Your task to perform on an android device: open app "Google Duo" Image 0: 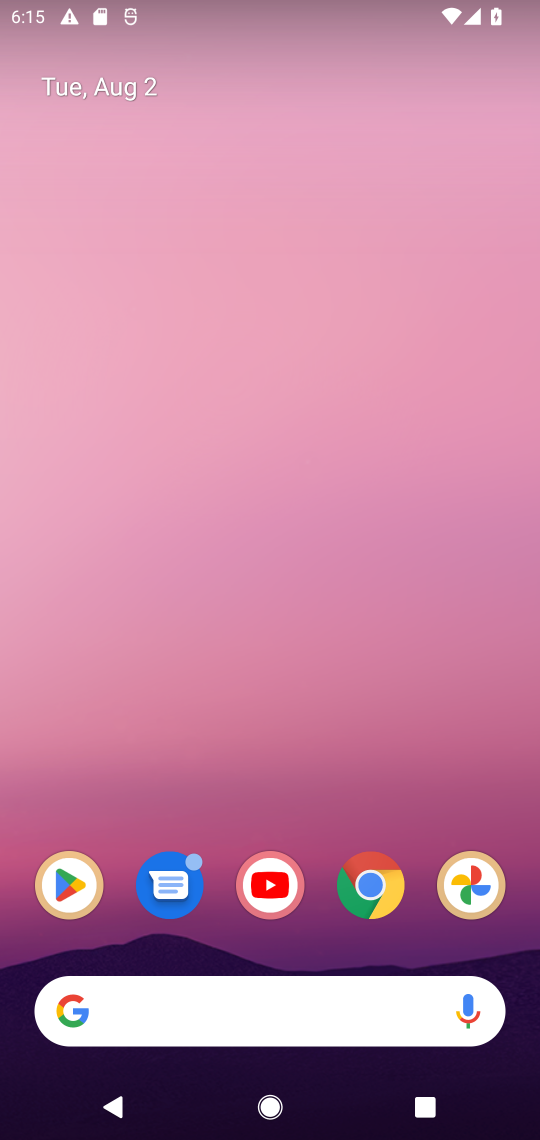
Step 0: press home button
Your task to perform on an android device: open app "Google Duo" Image 1: 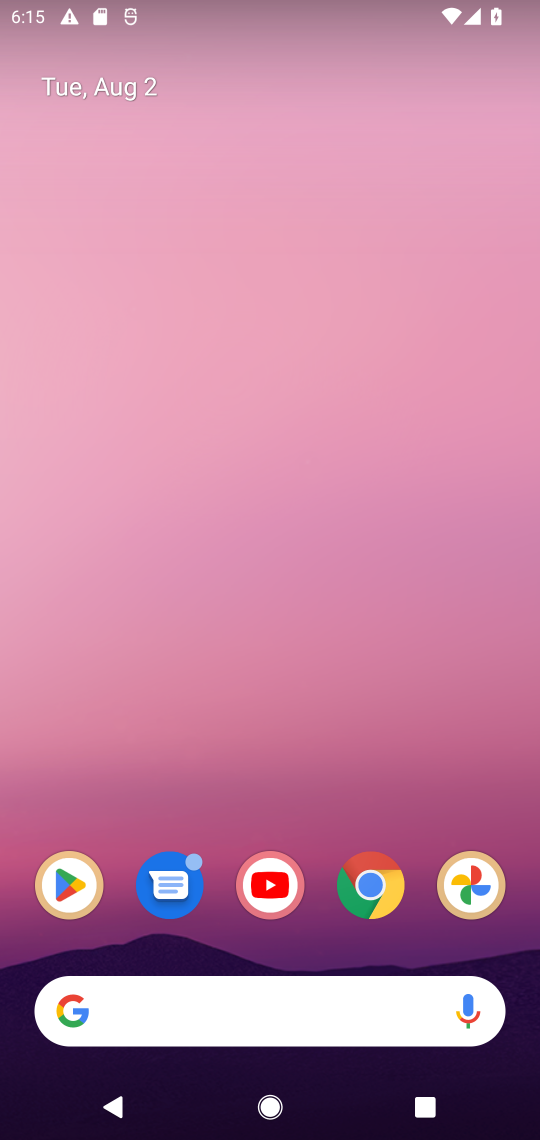
Step 1: drag from (411, 717) to (362, 69)
Your task to perform on an android device: open app "Google Duo" Image 2: 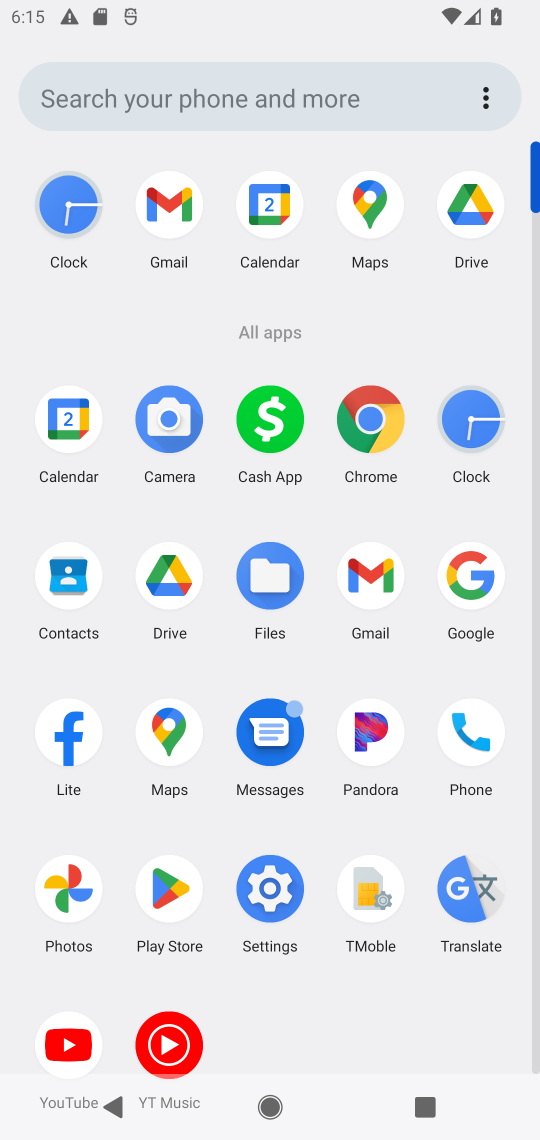
Step 2: click (166, 909)
Your task to perform on an android device: open app "Google Duo" Image 3: 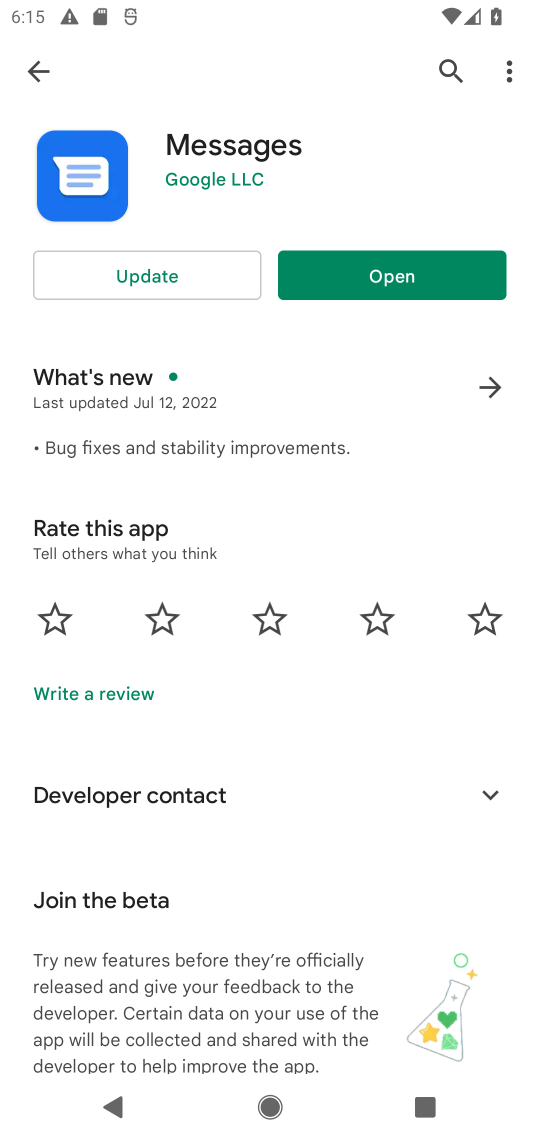
Step 3: click (449, 72)
Your task to perform on an android device: open app "Google Duo" Image 4: 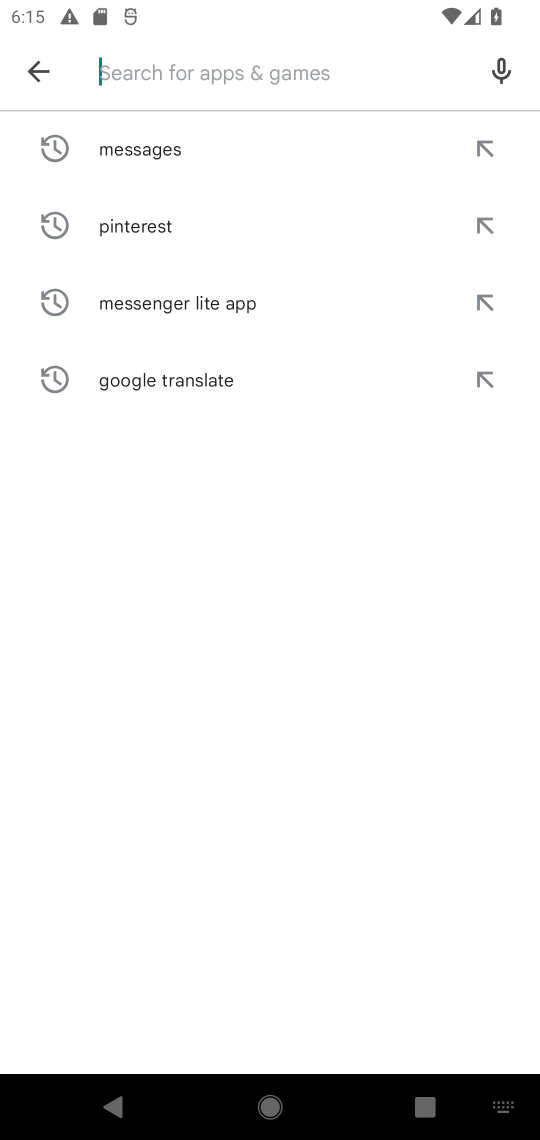
Step 4: type "google duo"
Your task to perform on an android device: open app "Google Duo" Image 5: 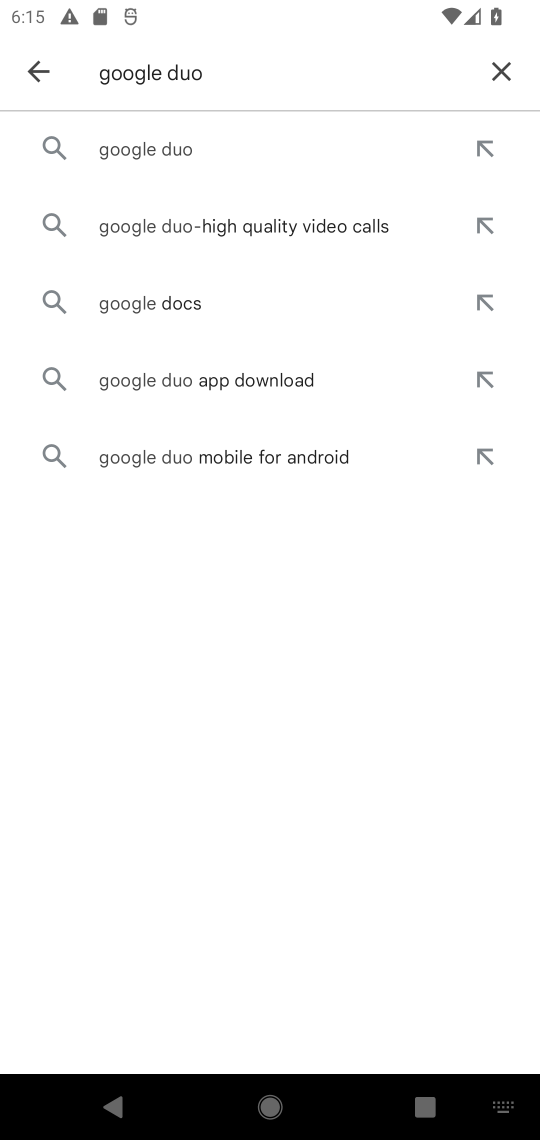
Step 5: click (189, 140)
Your task to perform on an android device: open app "Google Duo" Image 6: 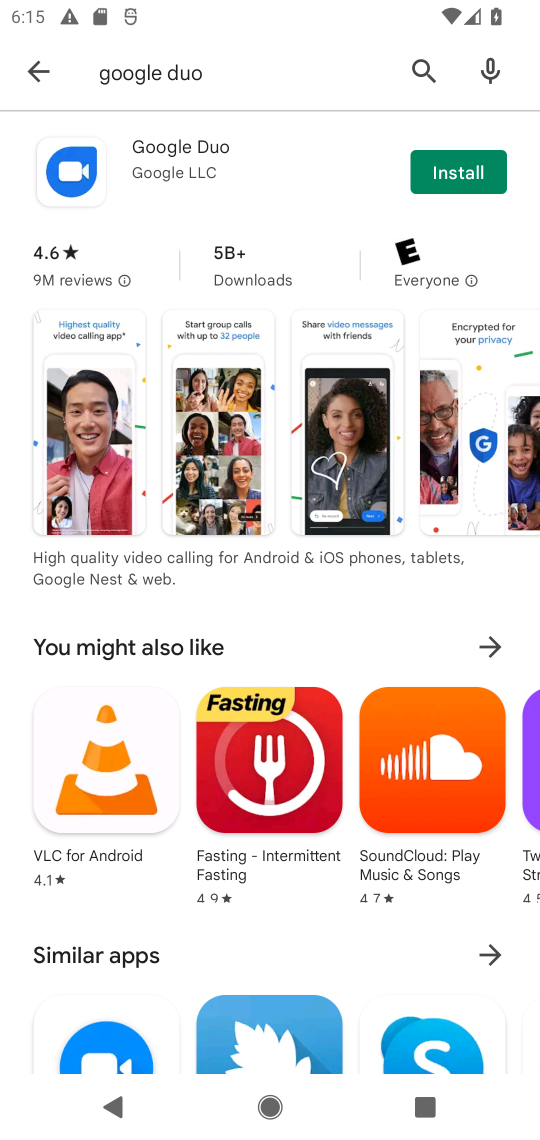
Step 6: task complete